Your task to perform on an android device: find photos in the google photos app Image 0: 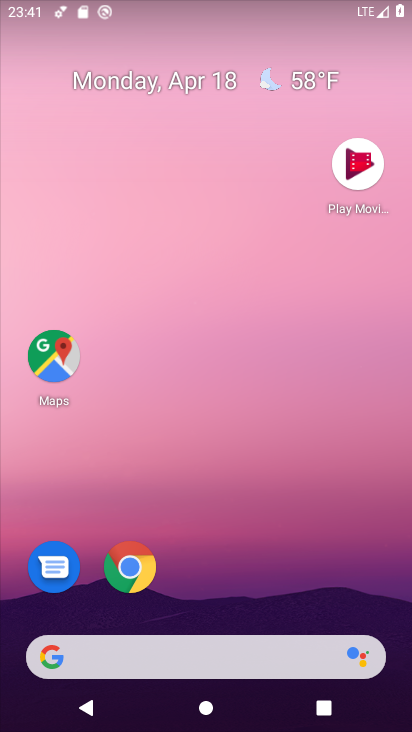
Step 0: drag from (209, 505) to (238, 187)
Your task to perform on an android device: find photos in the google photos app Image 1: 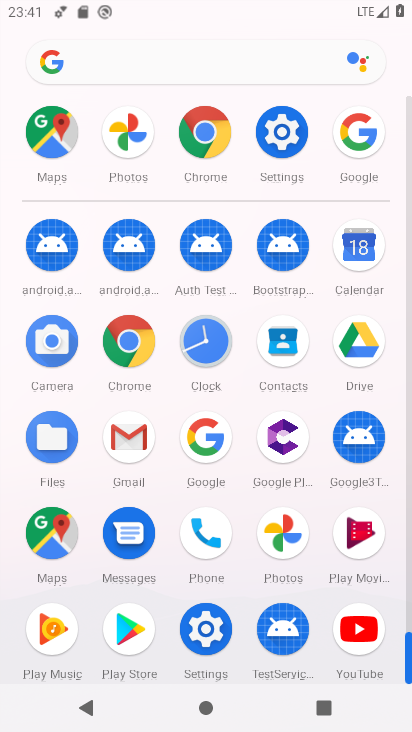
Step 1: drag from (251, 555) to (243, 135)
Your task to perform on an android device: find photos in the google photos app Image 2: 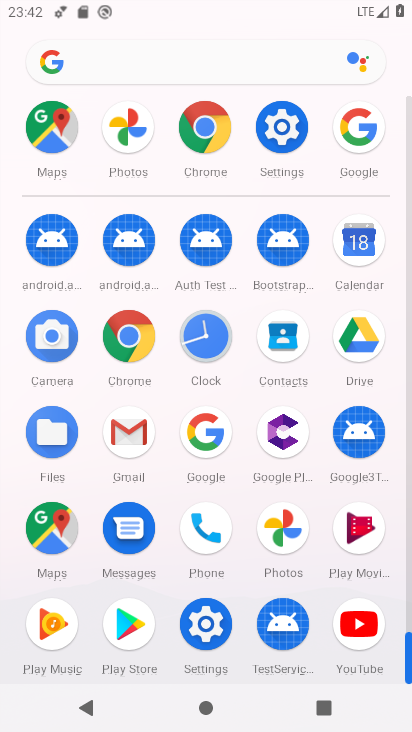
Step 2: click (208, 429)
Your task to perform on an android device: find photos in the google photos app Image 3: 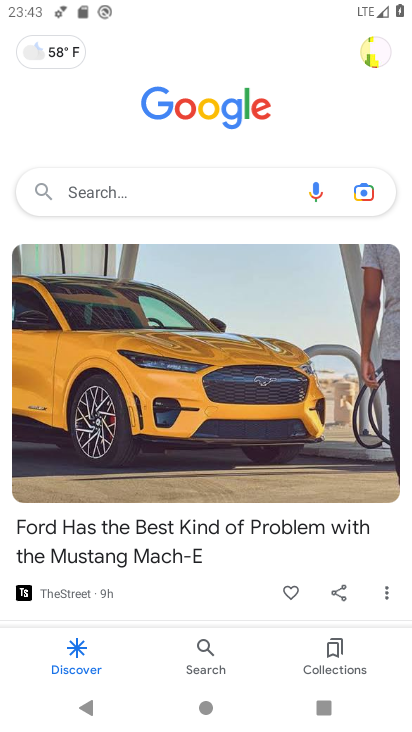
Step 3: drag from (320, 314) to (340, 155)
Your task to perform on an android device: find photos in the google photos app Image 4: 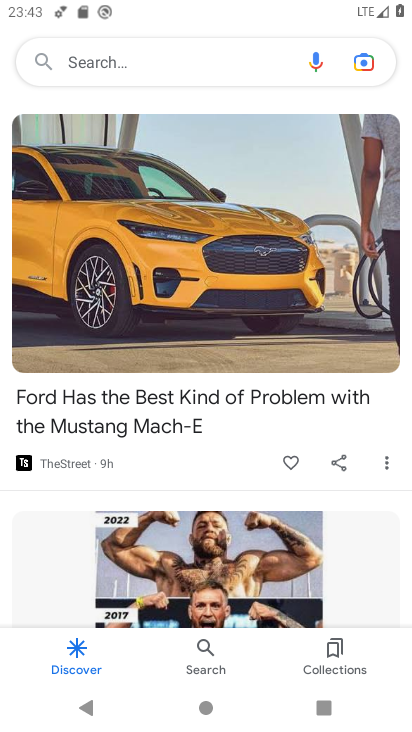
Step 4: press home button
Your task to perform on an android device: find photos in the google photos app Image 5: 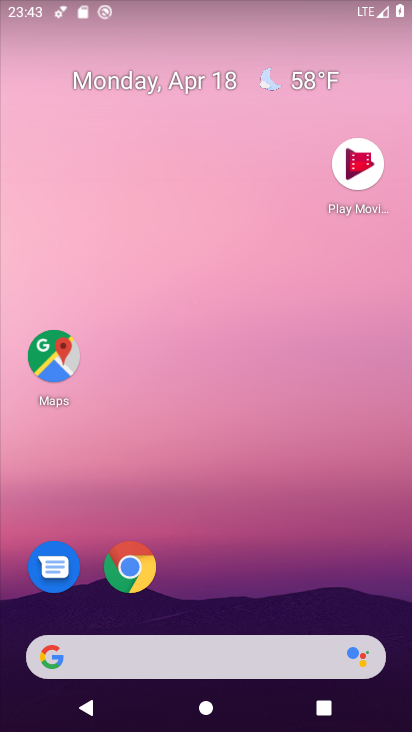
Step 5: drag from (226, 588) to (349, 93)
Your task to perform on an android device: find photos in the google photos app Image 6: 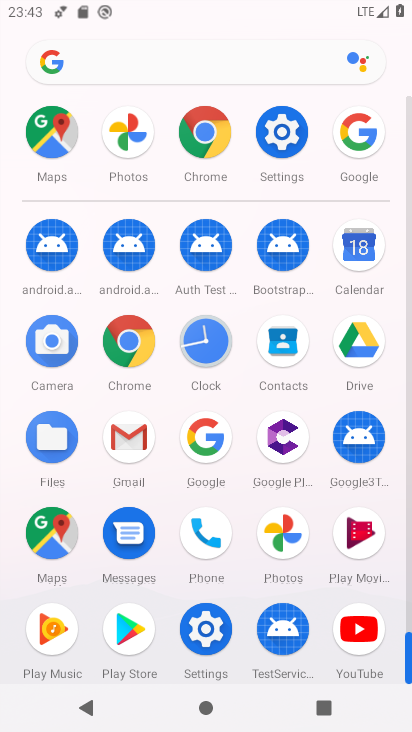
Step 6: drag from (167, 656) to (153, 266)
Your task to perform on an android device: find photos in the google photos app Image 7: 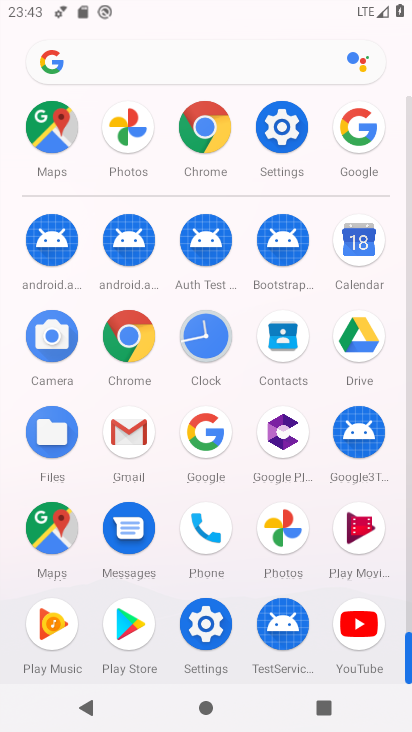
Step 7: click (289, 526)
Your task to perform on an android device: find photos in the google photos app Image 8: 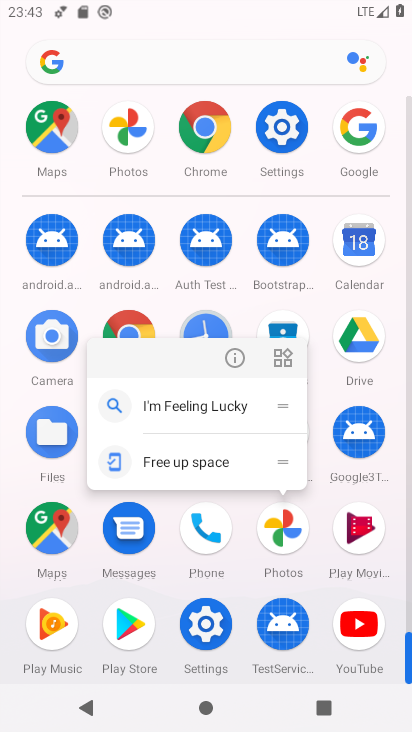
Step 8: click (218, 365)
Your task to perform on an android device: find photos in the google photos app Image 9: 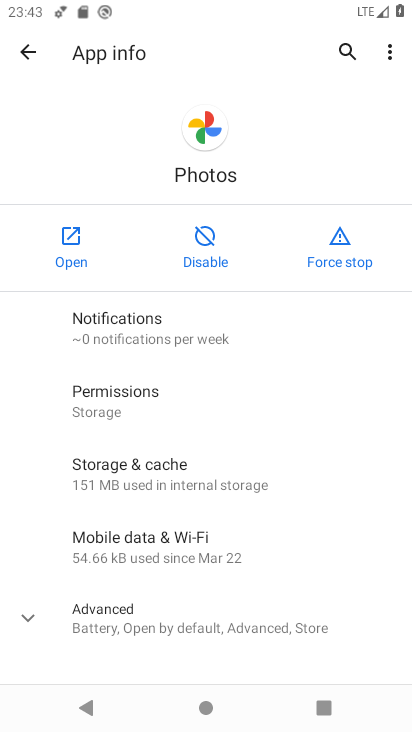
Step 9: click (76, 229)
Your task to perform on an android device: find photos in the google photos app Image 10: 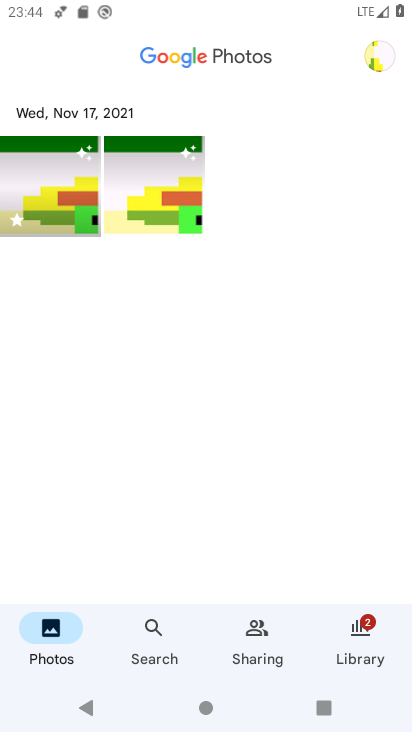
Step 10: drag from (290, 233) to (316, 135)
Your task to perform on an android device: find photos in the google photos app Image 11: 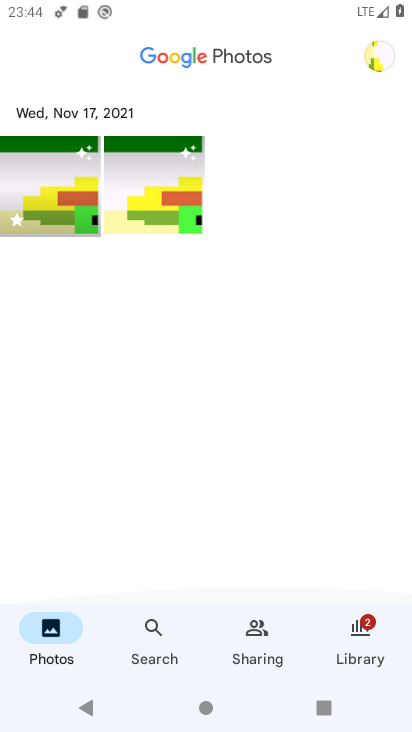
Step 11: click (147, 222)
Your task to perform on an android device: find photos in the google photos app Image 12: 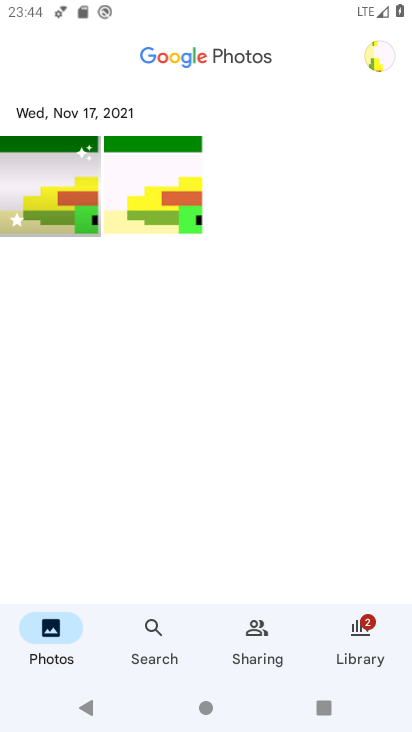
Step 12: task complete